Your task to perform on an android device: Open eBay Image 0: 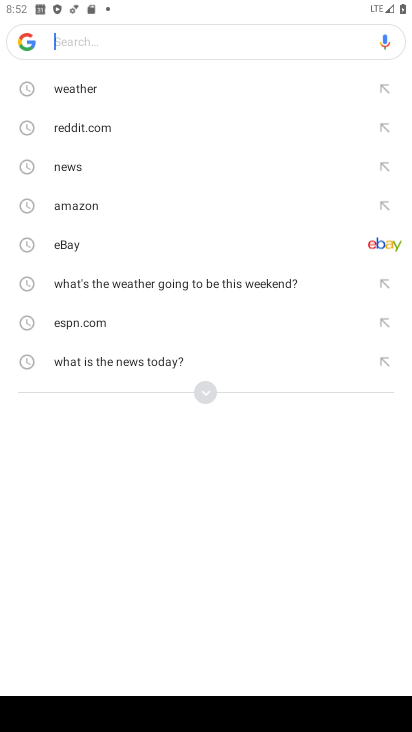
Step 0: drag from (255, 597) to (253, 337)
Your task to perform on an android device: Open eBay Image 1: 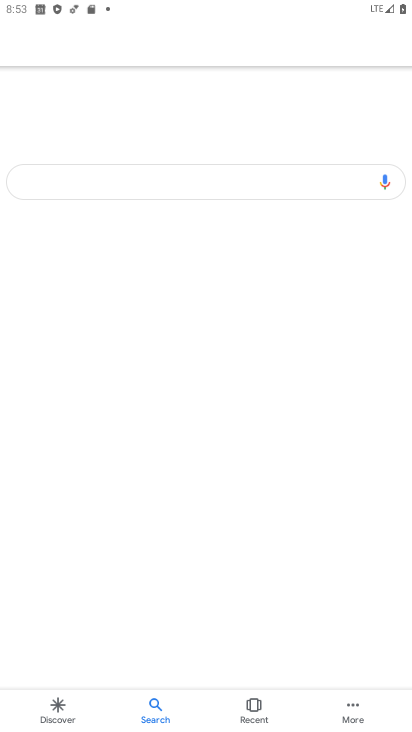
Step 1: press home button
Your task to perform on an android device: Open eBay Image 2: 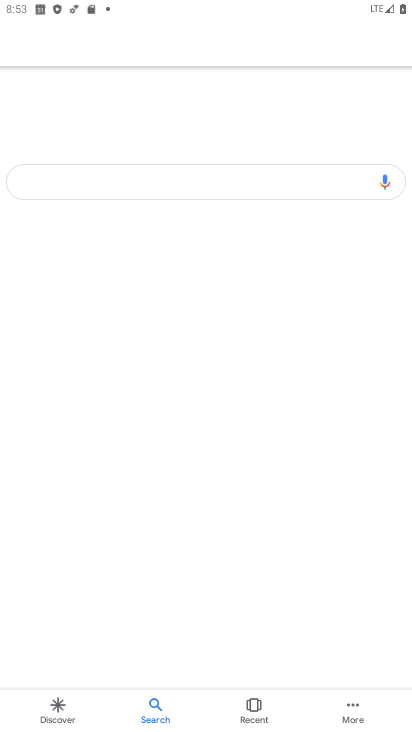
Step 2: press home button
Your task to perform on an android device: Open eBay Image 3: 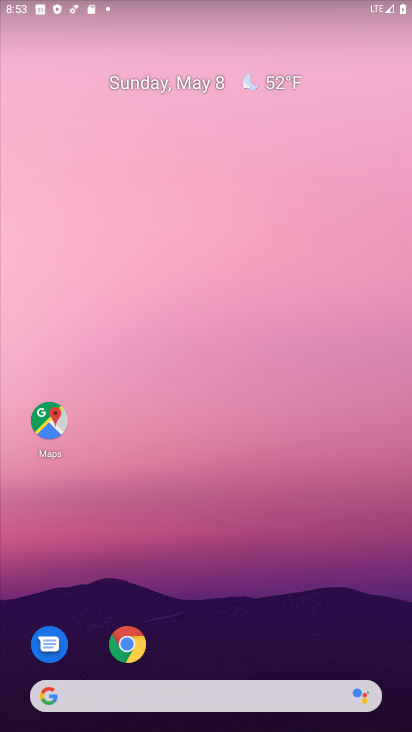
Step 3: drag from (214, 657) to (257, 229)
Your task to perform on an android device: Open eBay Image 4: 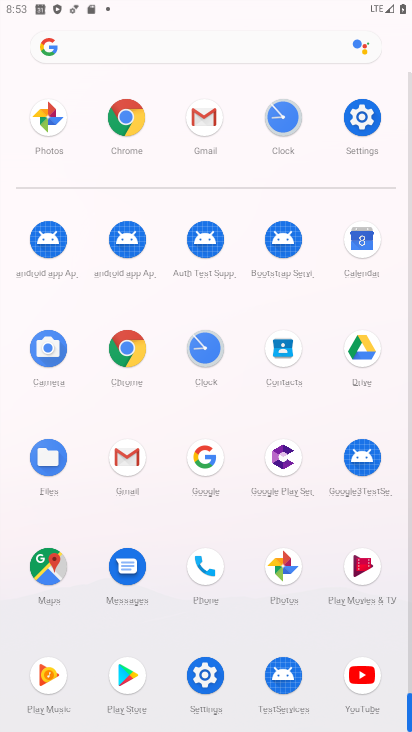
Step 4: click (172, 44)
Your task to perform on an android device: Open eBay Image 5: 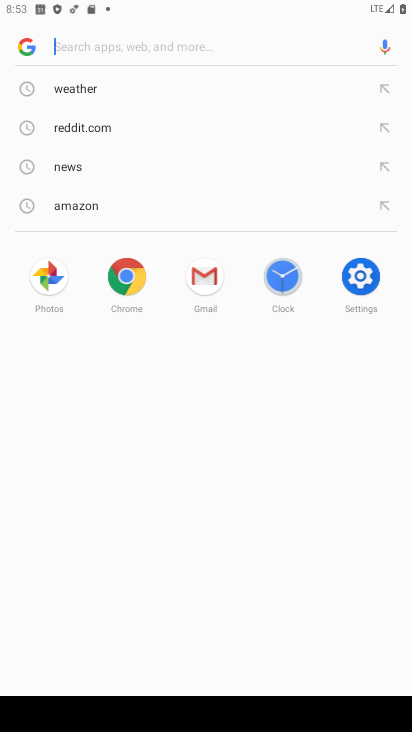
Step 5: type "ebay"
Your task to perform on an android device: Open eBay Image 6: 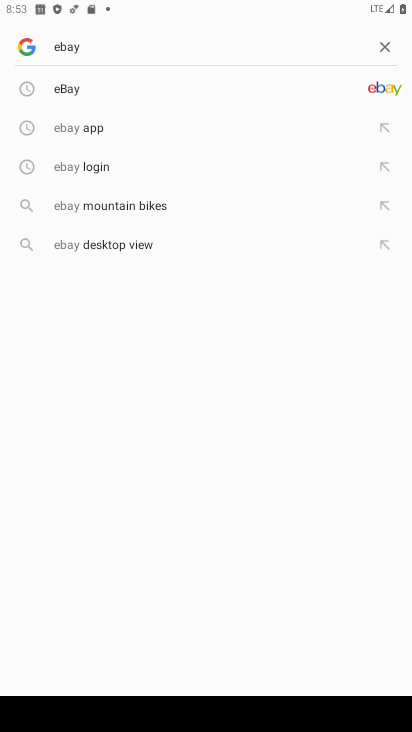
Step 6: click (99, 80)
Your task to perform on an android device: Open eBay Image 7: 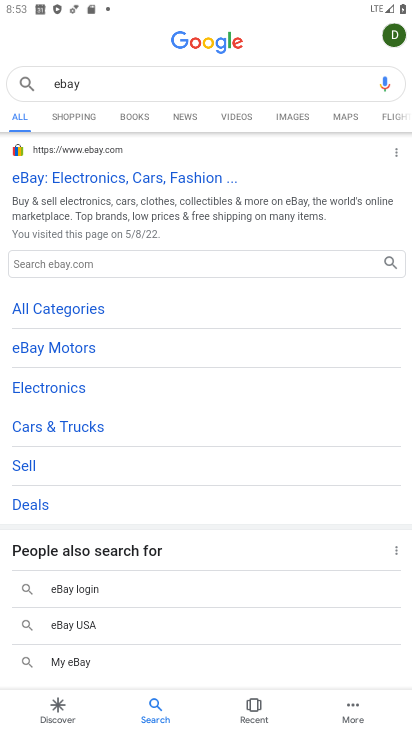
Step 7: drag from (230, 592) to (231, 232)
Your task to perform on an android device: Open eBay Image 8: 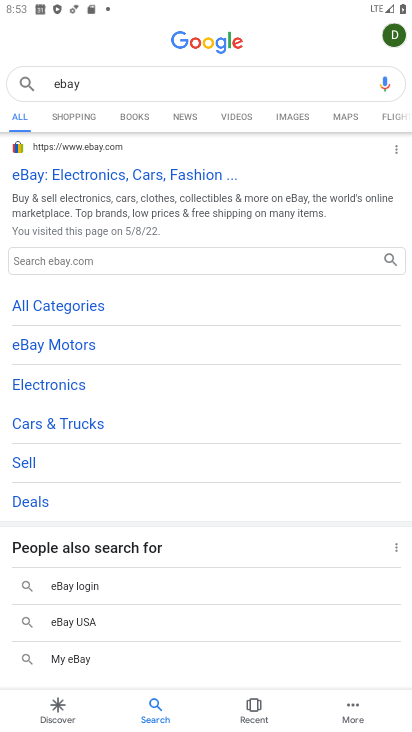
Step 8: drag from (224, 180) to (190, 568)
Your task to perform on an android device: Open eBay Image 9: 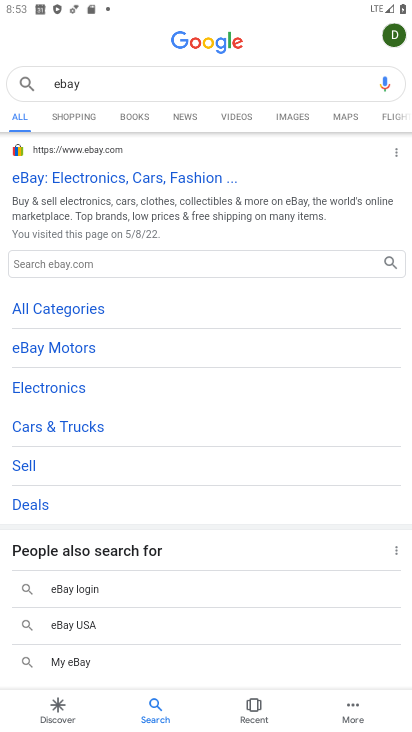
Step 9: drag from (208, 604) to (232, 370)
Your task to perform on an android device: Open eBay Image 10: 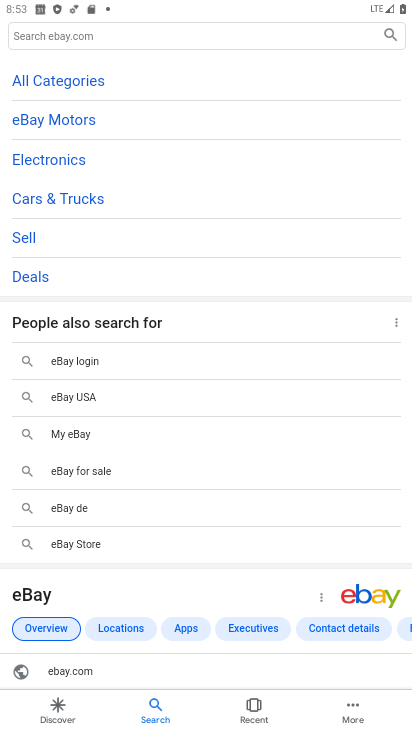
Step 10: drag from (239, 308) to (300, 731)
Your task to perform on an android device: Open eBay Image 11: 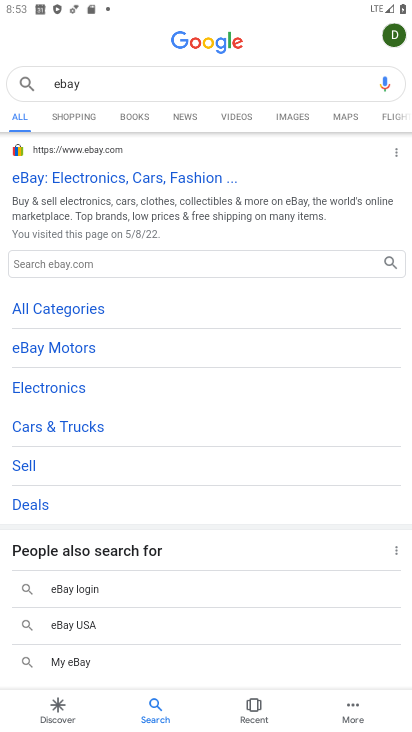
Step 11: click (97, 176)
Your task to perform on an android device: Open eBay Image 12: 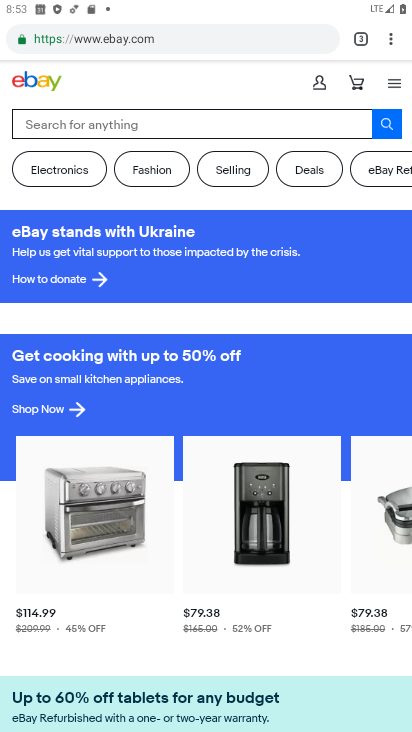
Step 12: task complete